Your task to perform on an android device: Search for acer predator on newegg.com, select the first entry, add it to the cart, then select checkout. Image 0: 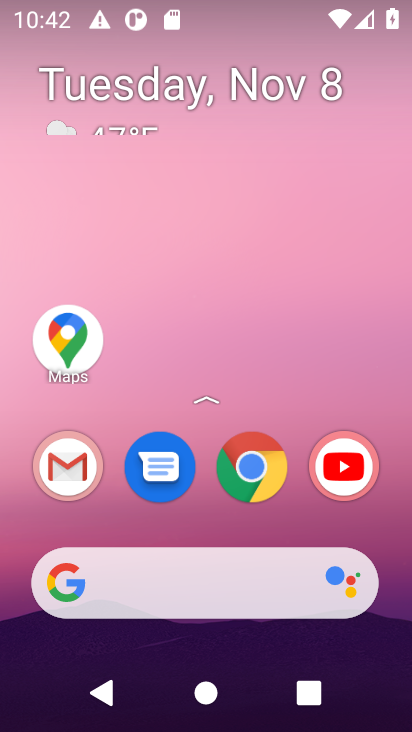
Step 0: task complete